Your task to perform on an android device: toggle pop-ups in chrome Image 0: 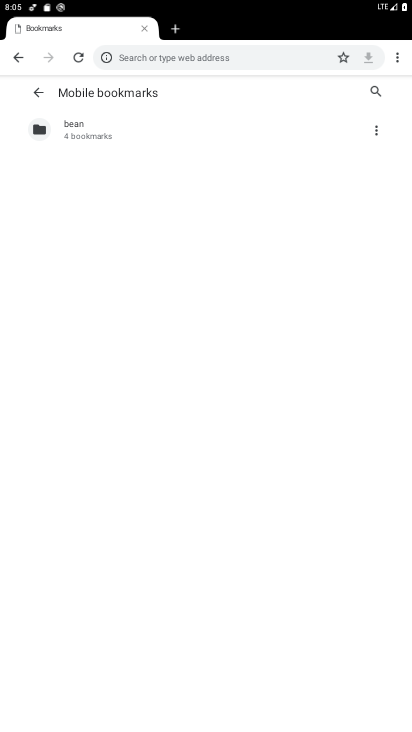
Step 0: click (395, 52)
Your task to perform on an android device: toggle pop-ups in chrome Image 1: 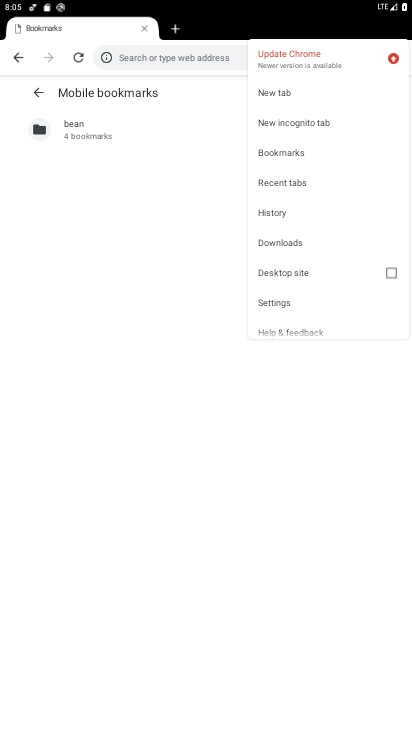
Step 1: click (279, 306)
Your task to perform on an android device: toggle pop-ups in chrome Image 2: 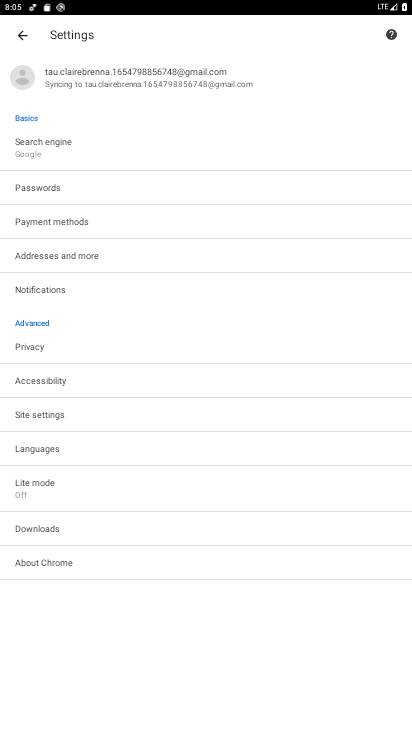
Step 2: click (54, 414)
Your task to perform on an android device: toggle pop-ups in chrome Image 3: 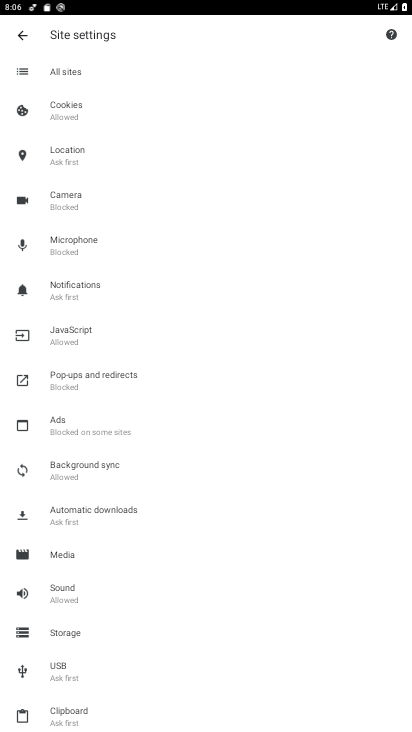
Step 3: click (88, 383)
Your task to perform on an android device: toggle pop-ups in chrome Image 4: 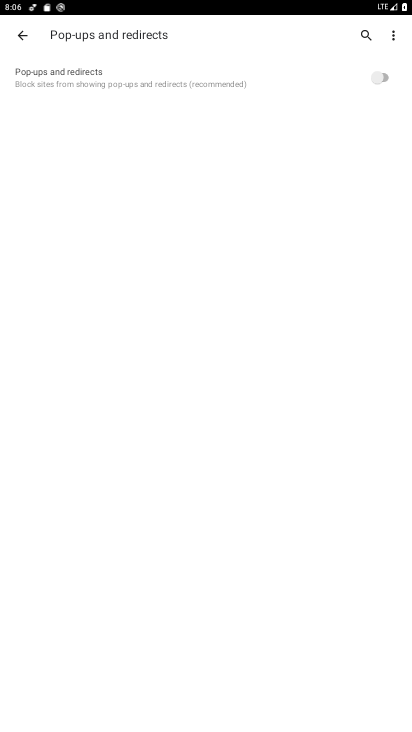
Step 4: click (352, 84)
Your task to perform on an android device: toggle pop-ups in chrome Image 5: 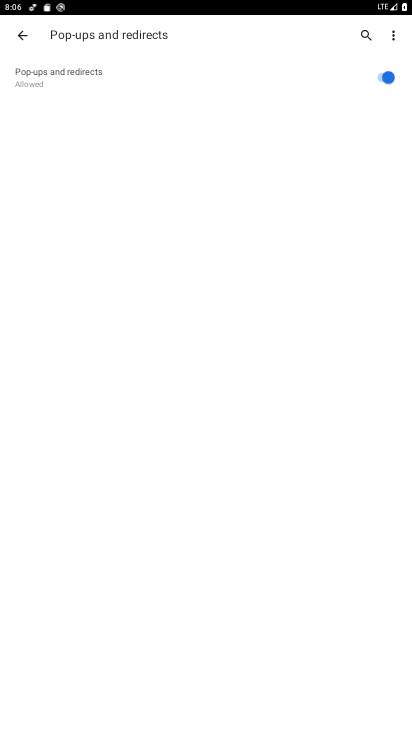
Step 5: task complete